Your task to perform on an android device: What's on my calendar today? Image 0: 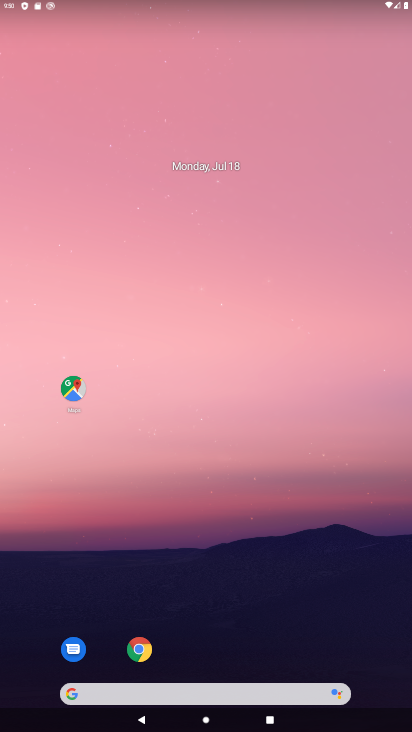
Step 0: drag from (49, 475) to (192, 68)
Your task to perform on an android device: What's on my calendar today? Image 1: 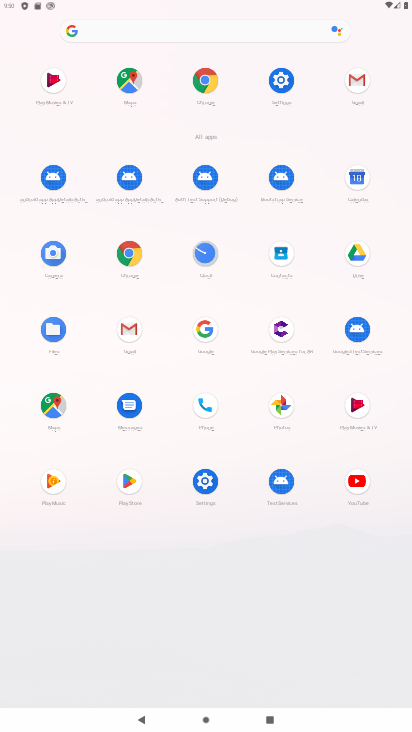
Step 1: click (348, 170)
Your task to perform on an android device: What's on my calendar today? Image 2: 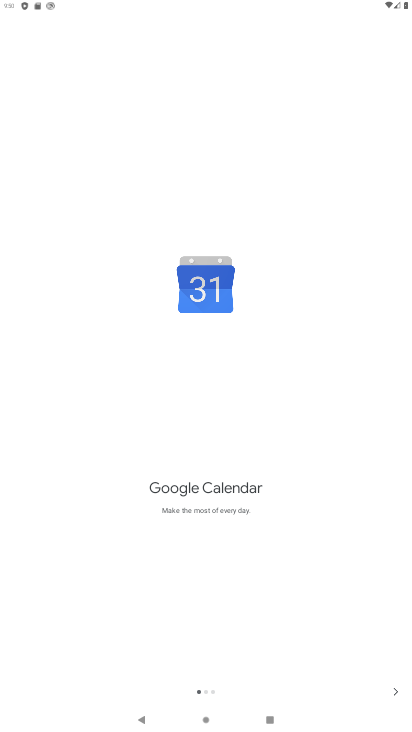
Step 2: click (396, 692)
Your task to perform on an android device: What's on my calendar today? Image 3: 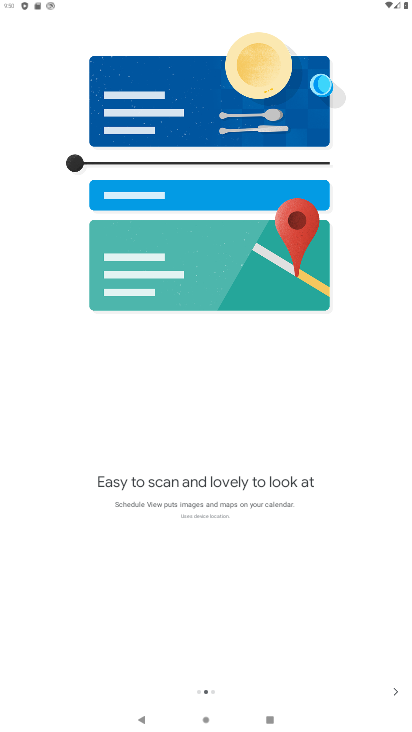
Step 3: click (396, 688)
Your task to perform on an android device: What's on my calendar today? Image 4: 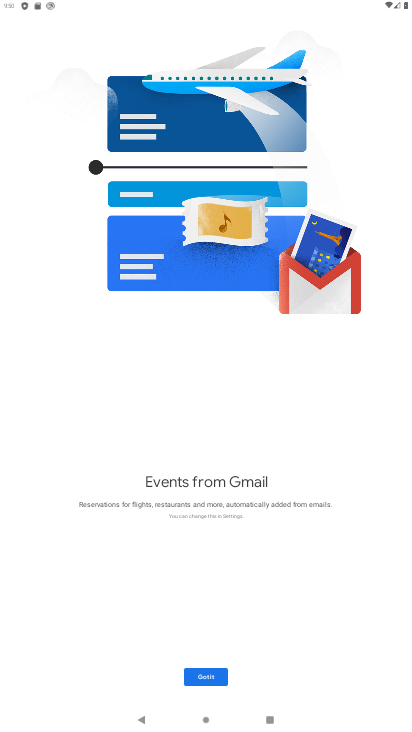
Step 4: click (201, 681)
Your task to perform on an android device: What's on my calendar today? Image 5: 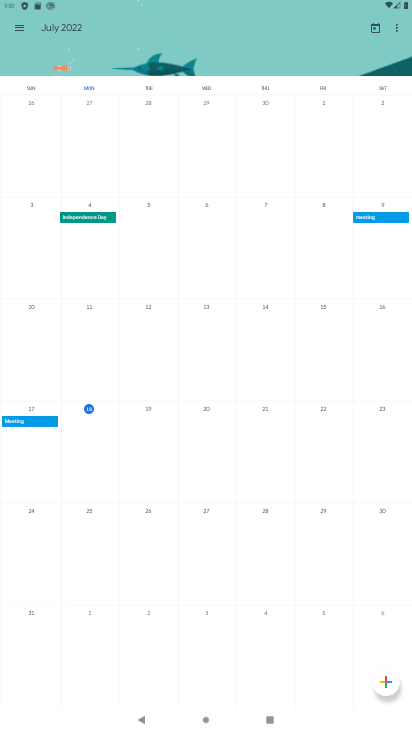
Step 5: click (54, 29)
Your task to perform on an android device: What's on my calendar today? Image 6: 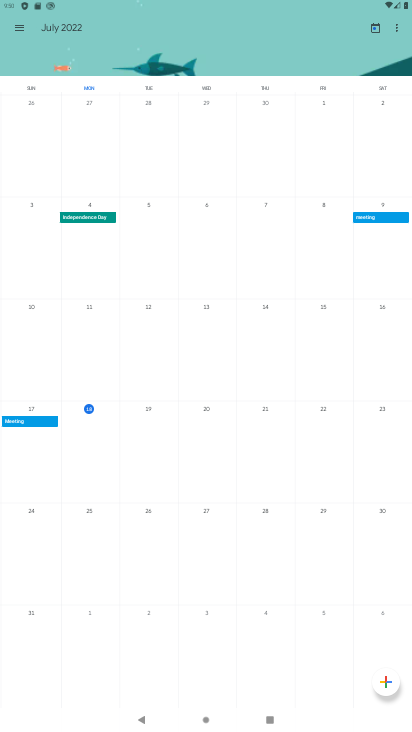
Step 6: click (81, 438)
Your task to perform on an android device: What's on my calendar today? Image 7: 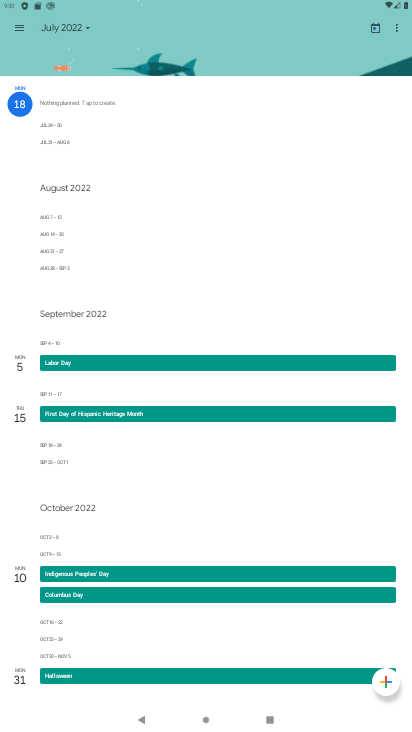
Step 7: click (72, 28)
Your task to perform on an android device: What's on my calendar today? Image 8: 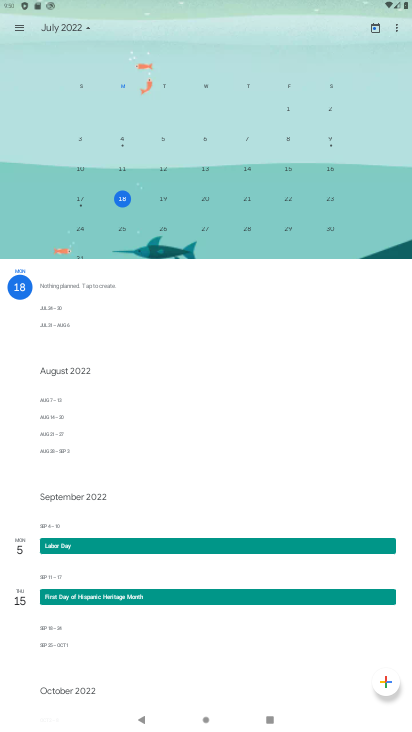
Step 8: click (159, 203)
Your task to perform on an android device: What's on my calendar today? Image 9: 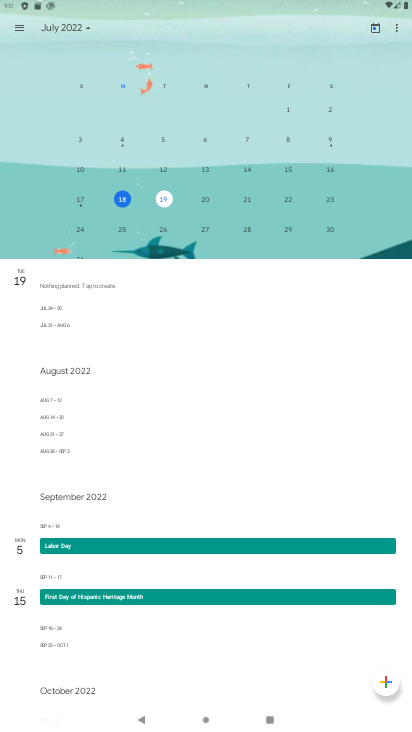
Step 9: task complete